Your task to perform on an android device: Go to network settings Image 0: 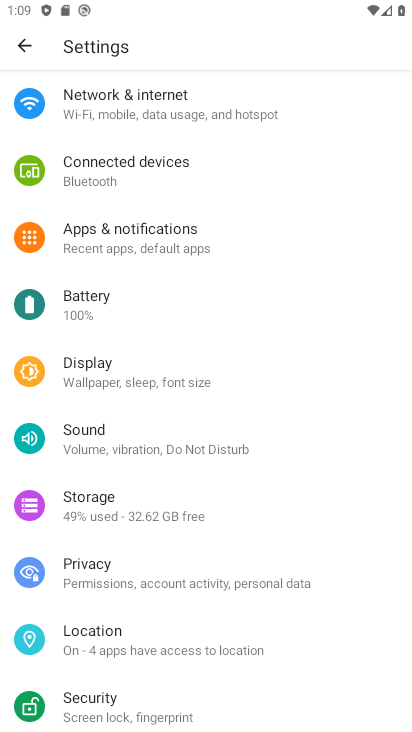
Step 0: press home button
Your task to perform on an android device: Go to network settings Image 1: 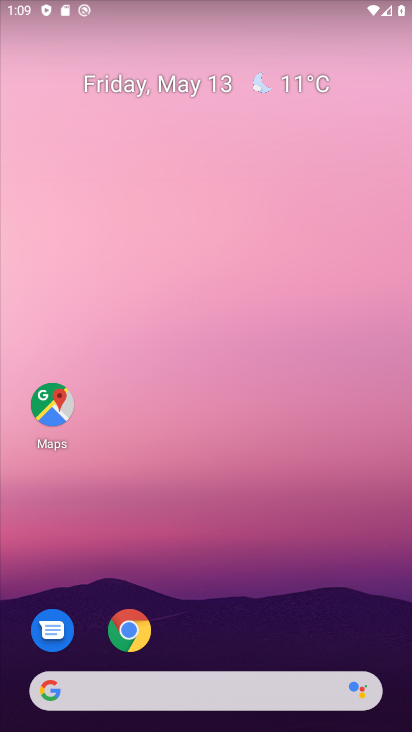
Step 1: drag from (228, 621) to (299, 205)
Your task to perform on an android device: Go to network settings Image 2: 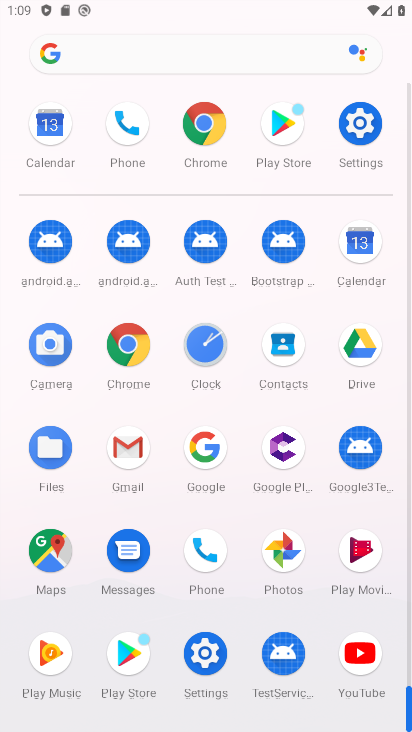
Step 2: click (353, 139)
Your task to perform on an android device: Go to network settings Image 3: 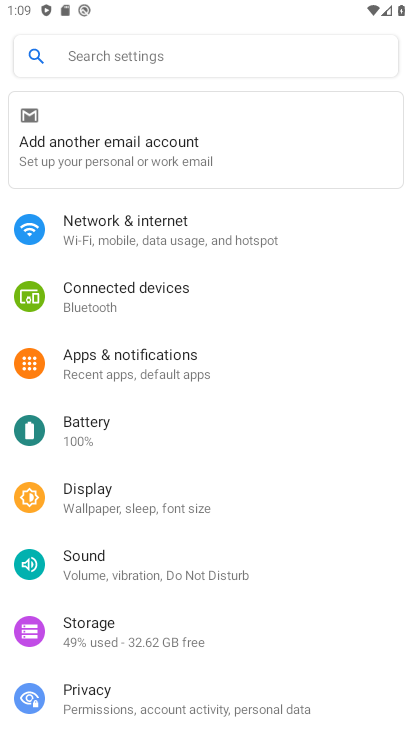
Step 3: click (186, 234)
Your task to perform on an android device: Go to network settings Image 4: 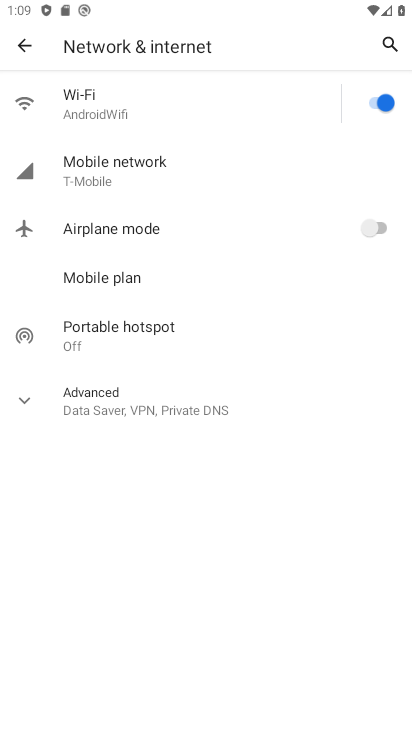
Step 4: click (153, 184)
Your task to perform on an android device: Go to network settings Image 5: 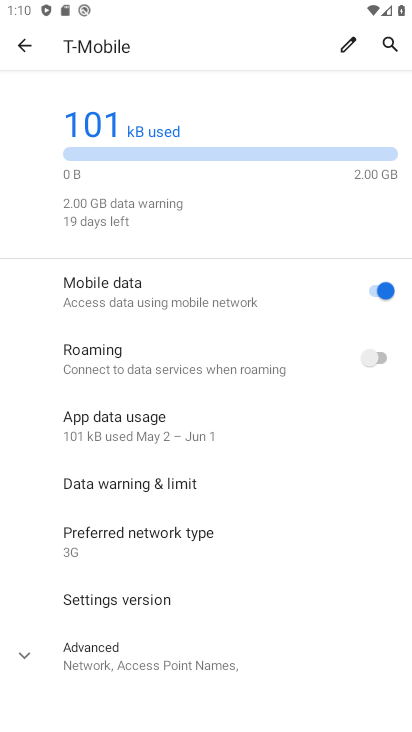
Step 5: click (165, 669)
Your task to perform on an android device: Go to network settings Image 6: 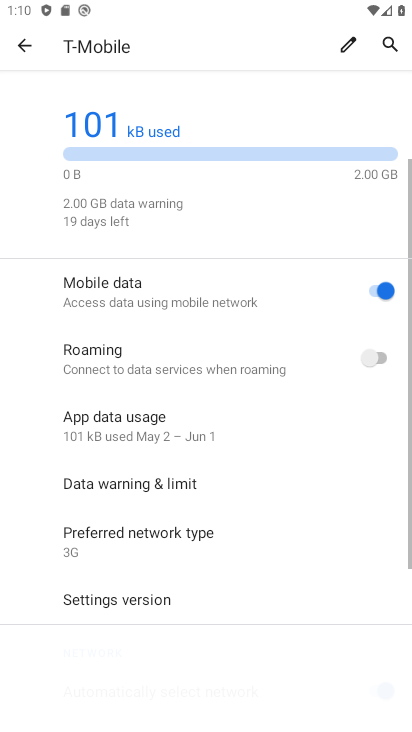
Step 6: drag from (168, 656) to (228, 446)
Your task to perform on an android device: Go to network settings Image 7: 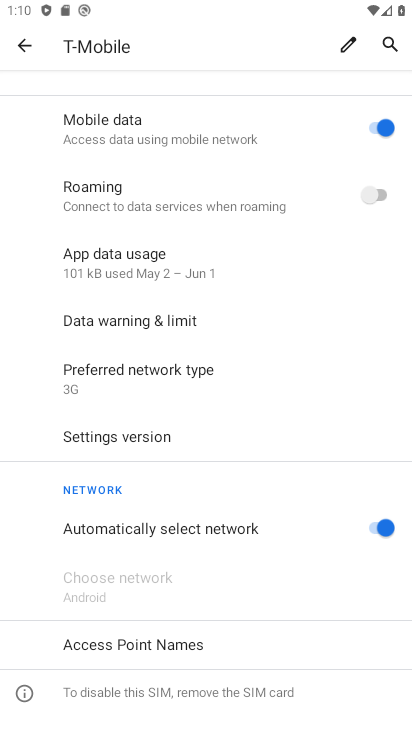
Step 7: drag from (216, 667) to (253, 376)
Your task to perform on an android device: Go to network settings Image 8: 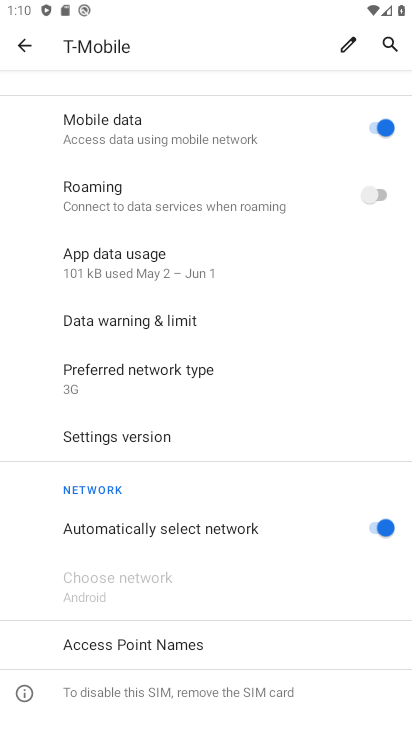
Step 8: drag from (194, 590) to (239, 376)
Your task to perform on an android device: Go to network settings Image 9: 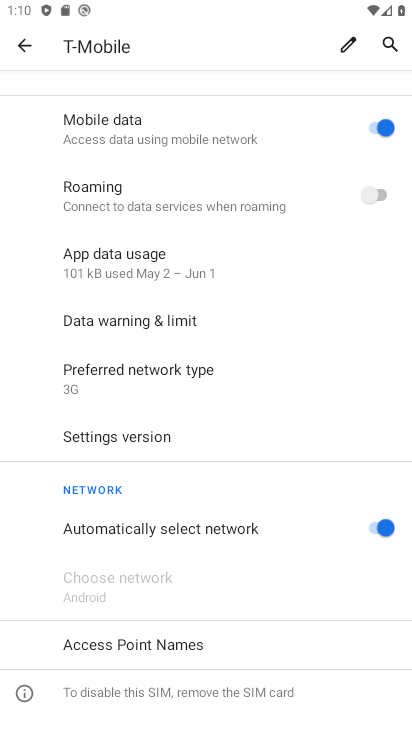
Step 9: click (207, 703)
Your task to perform on an android device: Go to network settings Image 10: 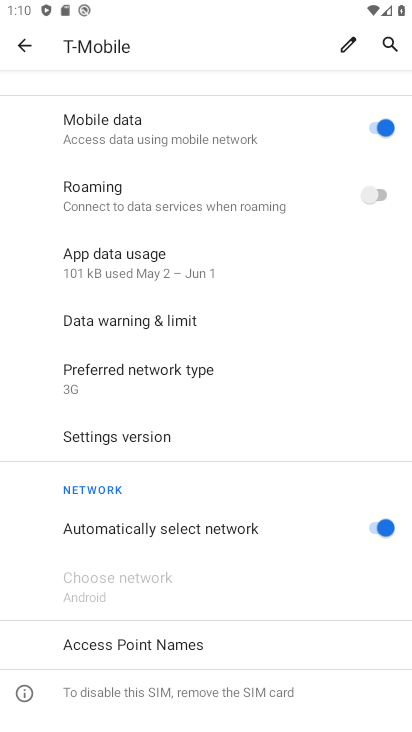
Step 10: task complete